Your task to perform on an android device: turn on location history Image 0: 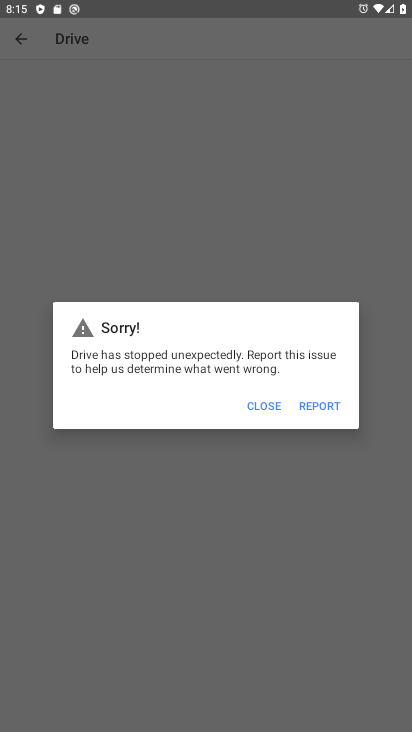
Step 0: press home button
Your task to perform on an android device: turn on location history Image 1: 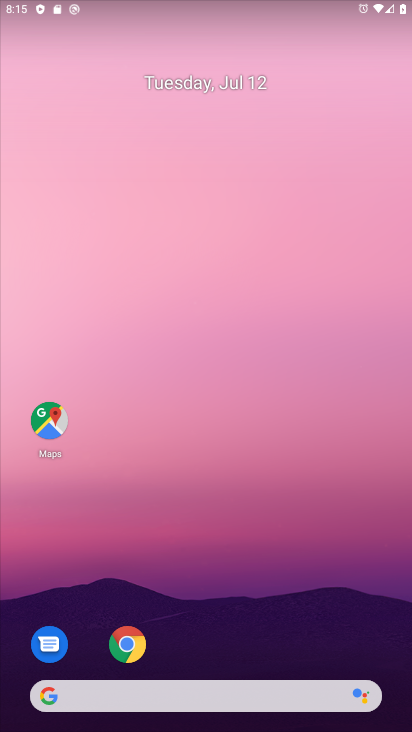
Step 1: drag from (28, 720) to (264, 50)
Your task to perform on an android device: turn on location history Image 2: 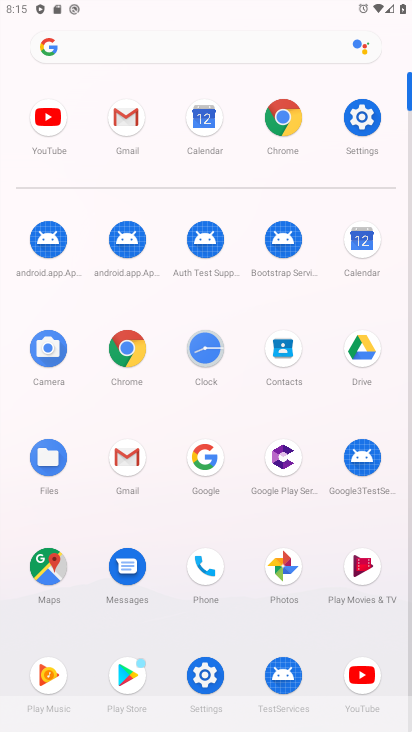
Step 2: click (192, 668)
Your task to perform on an android device: turn on location history Image 3: 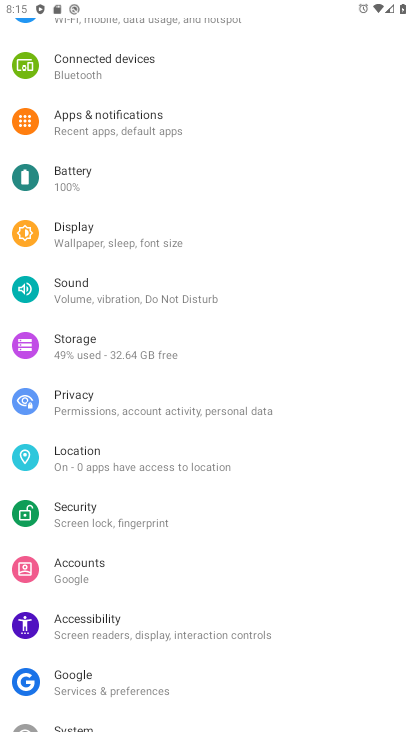
Step 3: click (99, 470)
Your task to perform on an android device: turn on location history Image 4: 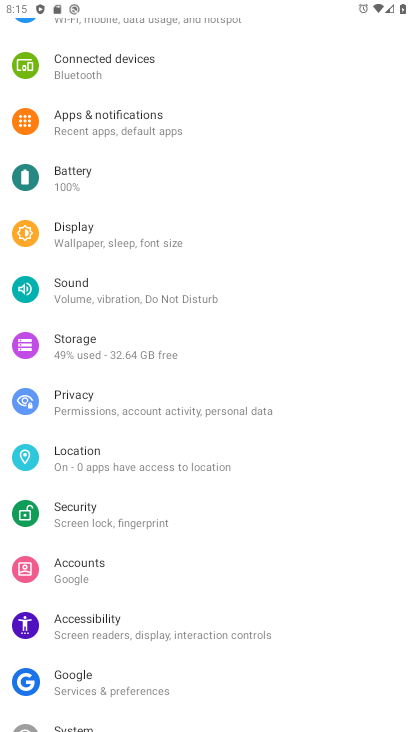
Step 4: click (101, 466)
Your task to perform on an android device: turn on location history Image 5: 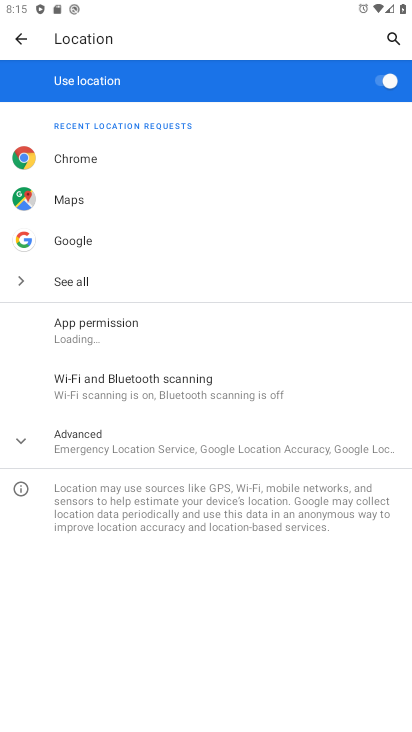
Step 5: click (101, 436)
Your task to perform on an android device: turn on location history Image 6: 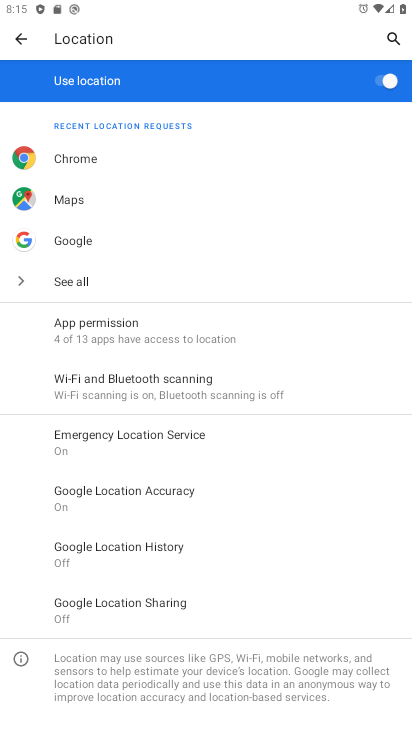
Step 6: click (106, 556)
Your task to perform on an android device: turn on location history Image 7: 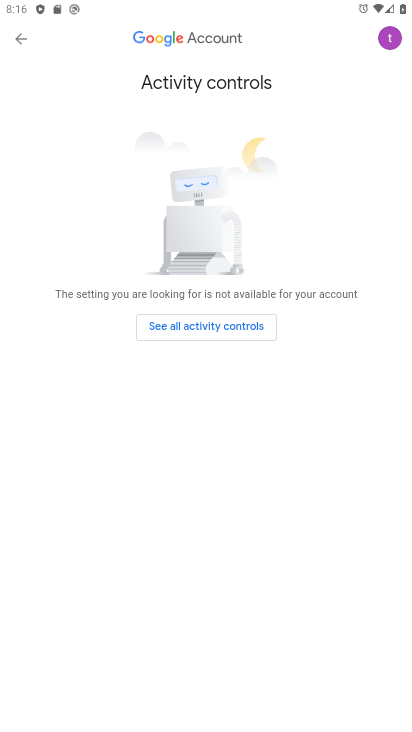
Step 7: click (195, 332)
Your task to perform on an android device: turn on location history Image 8: 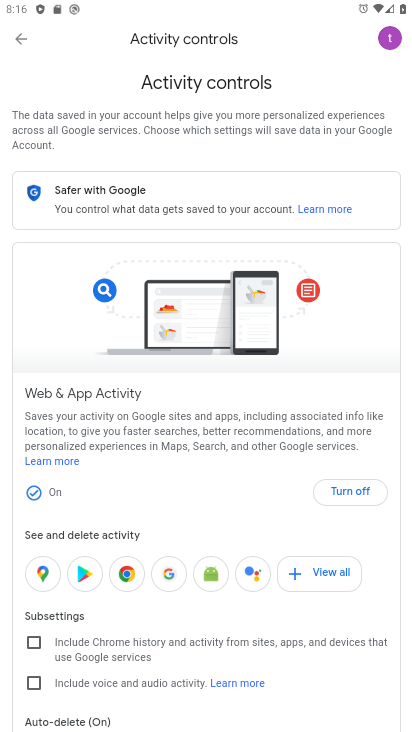
Step 8: click (362, 495)
Your task to perform on an android device: turn on location history Image 9: 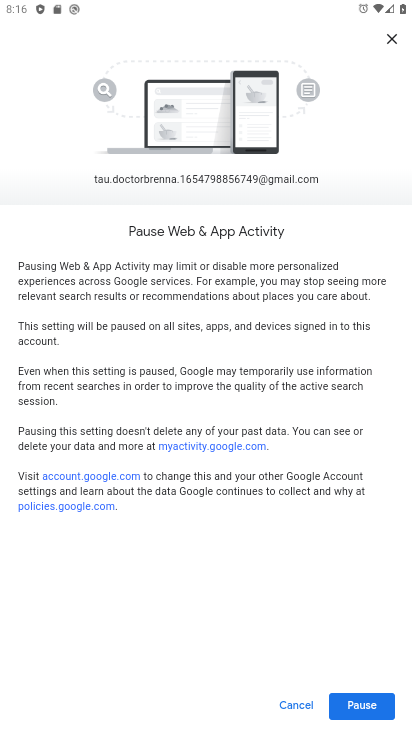
Step 9: click (358, 705)
Your task to perform on an android device: turn on location history Image 10: 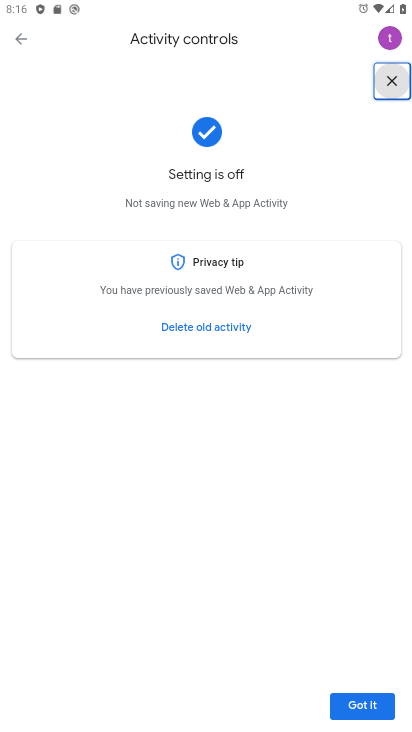
Step 10: click (363, 707)
Your task to perform on an android device: turn on location history Image 11: 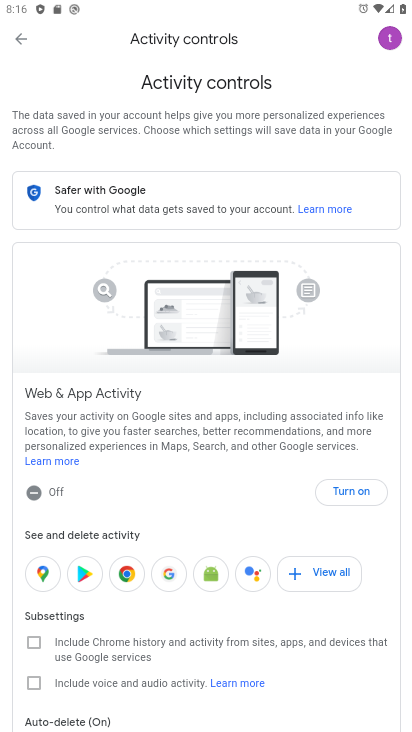
Step 11: task complete